Your task to perform on an android device: turn off wifi Image 0: 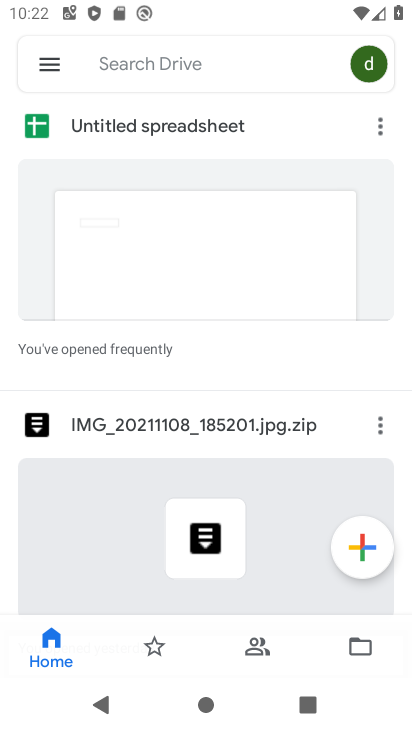
Step 0: press home button
Your task to perform on an android device: turn off wifi Image 1: 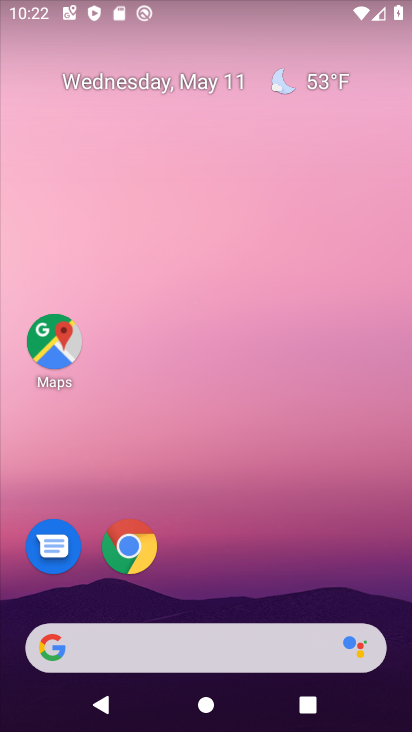
Step 1: drag from (384, 614) to (282, 94)
Your task to perform on an android device: turn off wifi Image 2: 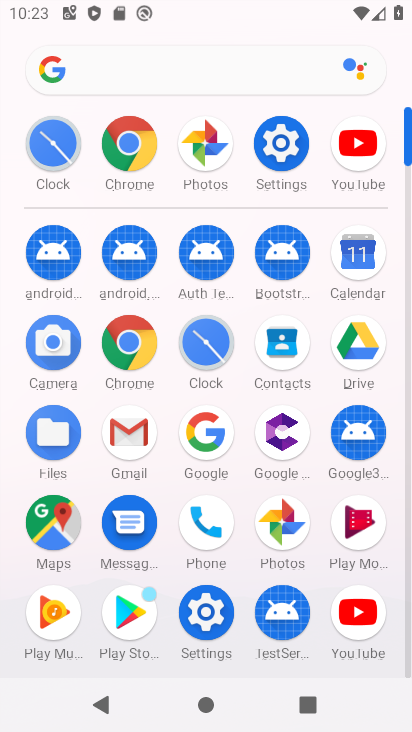
Step 2: drag from (238, 3) to (244, 599)
Your task to perform on an android device: turn off wifi Image 3: 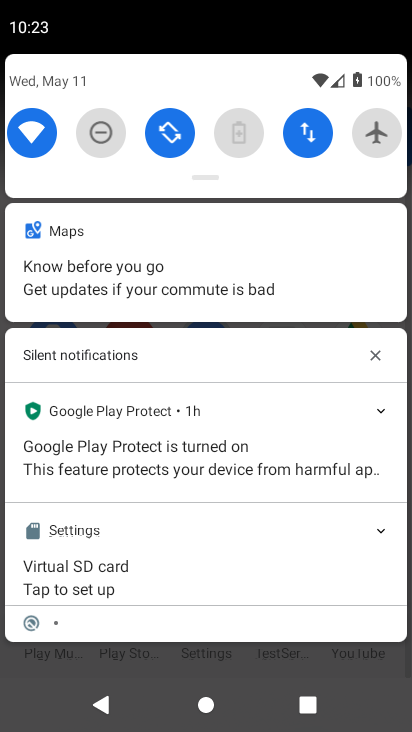
Step 3: click (31, 141)
Your task to perform on an android device: turn off wifi Image 4: 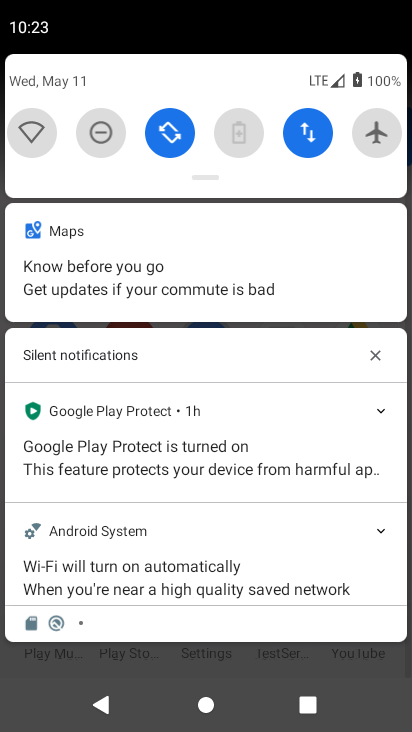
Step 4: task complete